Your task to perform on an android device: Is it going to rain today? Image 0: 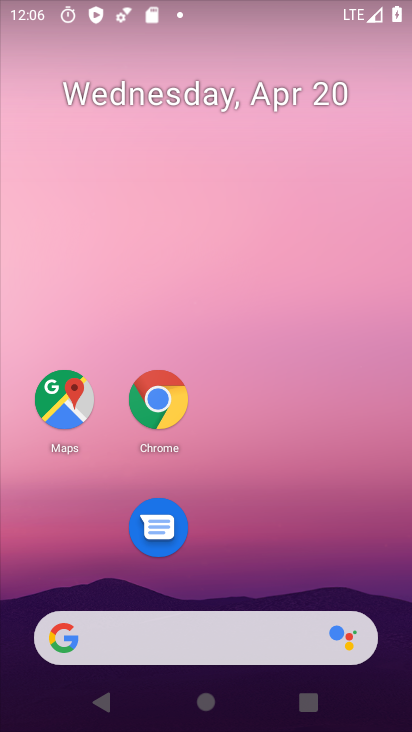
Step 0: drag from (257, 660) to (310, 74)
Your task to perform on an android device: Is it going to rain today? Image 1: 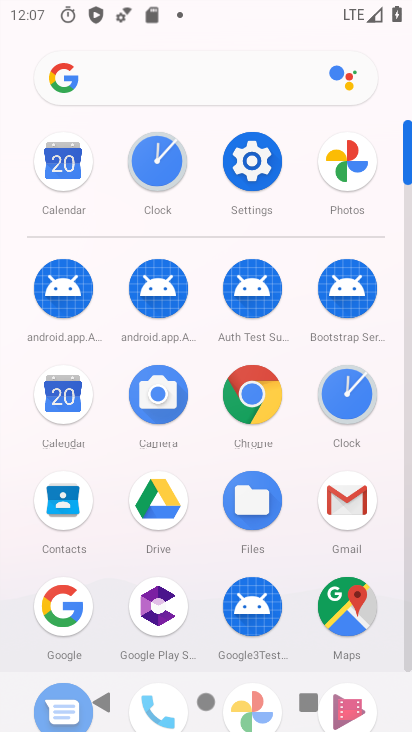
Step 1: click (161, 91)
Your task to perform on an android device: Is it going to rain today? Image 2: 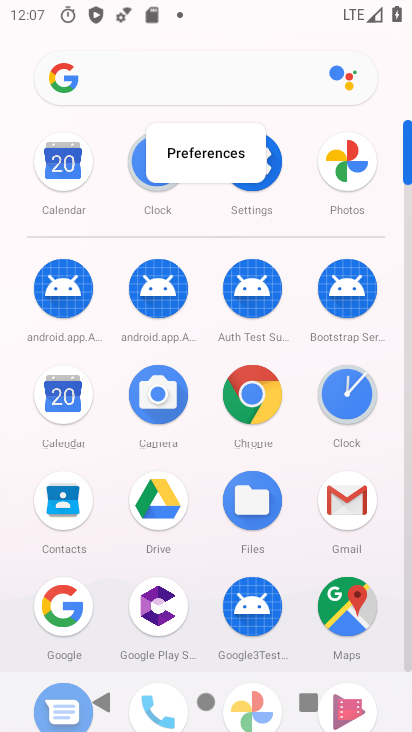
Step 2: click (113, 64)
Your task to perform on an android device: Is it going to rain today? Image 3: 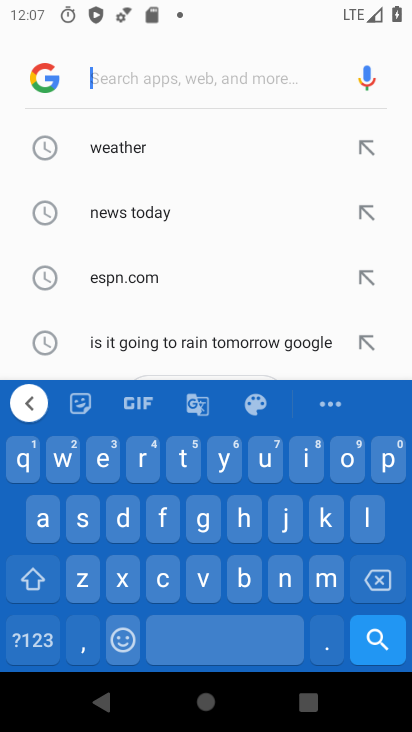
Step 3: click (120, 153)
Your task to perform on an android device: Is it going to rain today? Image 4: 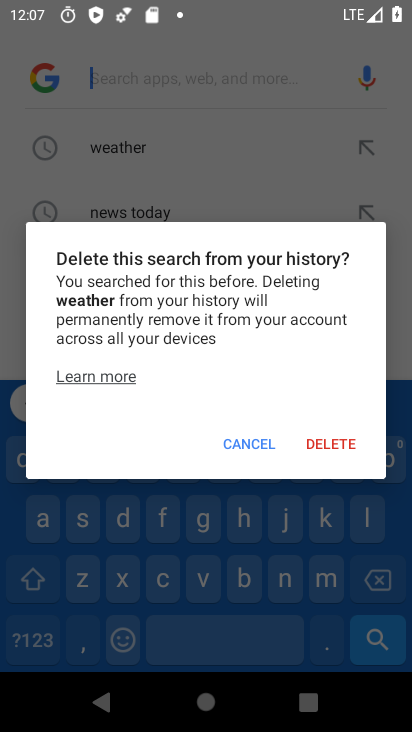
Step 4: click (245, 445)
Your task to perform on an android device: Is it going to rain today? Image 5: 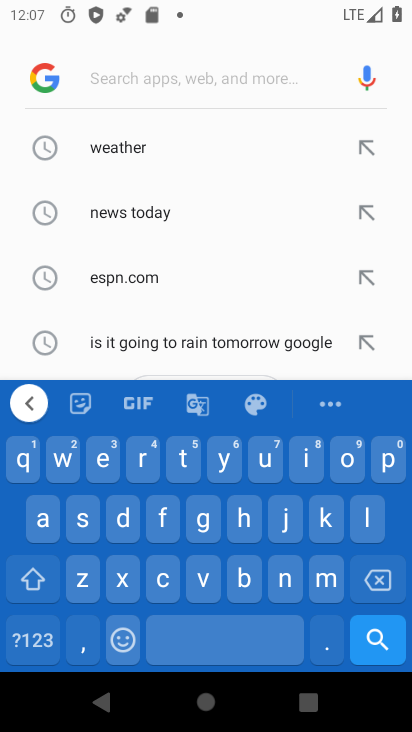
Step 5: click (169, 168)
Your task to perform on an android device: Is it going to rain today? Image 6: 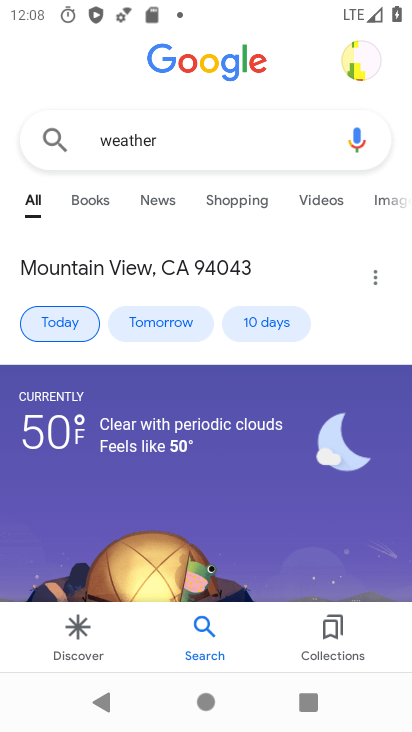
Step 6: task complete